Your task to perform on an android device: turn on the 24-hour format for clock Image 0: 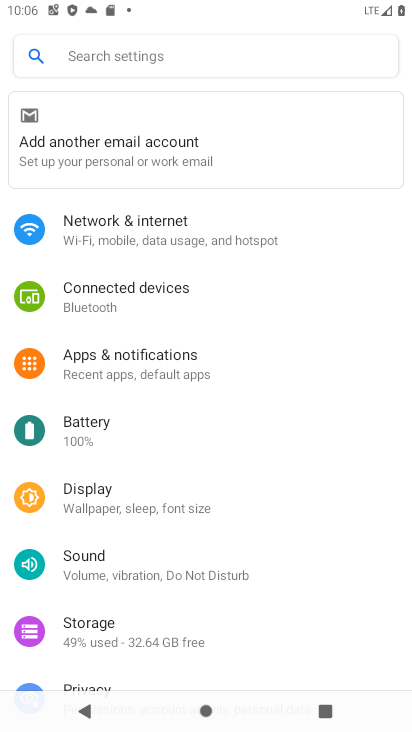
Step 0: press home button
Your task to perform on an android device: turn on the 24-hour format for clock Image 1: 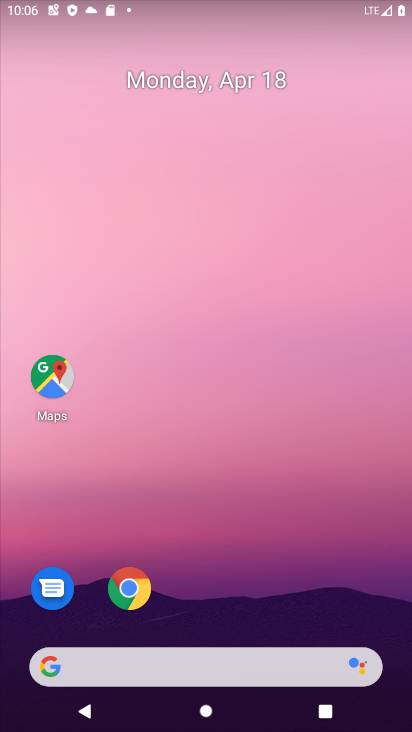
Step 1: drag from (383, 582) to (348, 150)
Your task to perform on an android device: turn on the 24-hour format for clock Image 2: 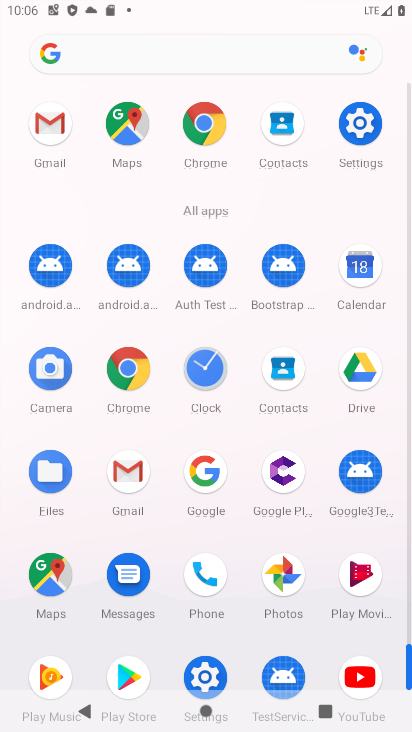
Step 2: click (203, 363)
Your task to perform on an android device: turn on the 24-hour format for clock Image 3: 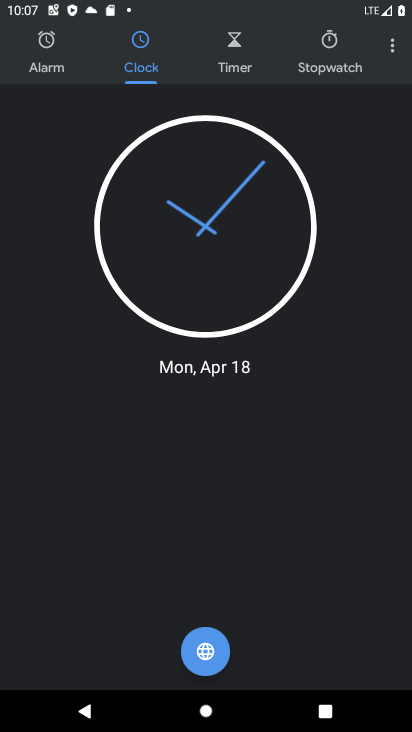
Step 3: click (391, 45)
Your task to perform on an android device: turn on the 24-hour format for clock Image 4: 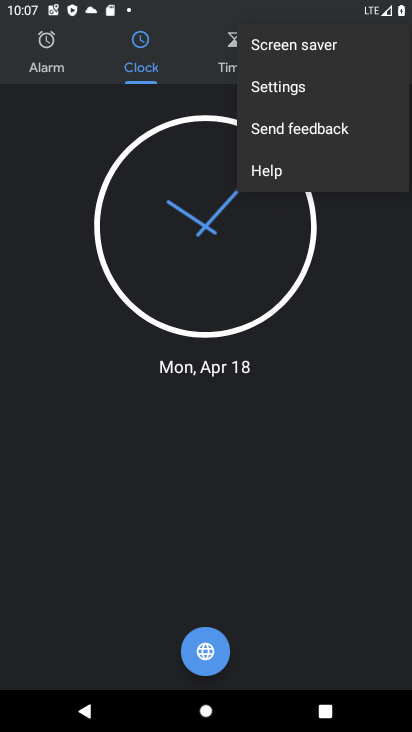
Step 4: click (273, 85)
Your task to perform on an android device: turn on the 24-hour format for clock Image 5: 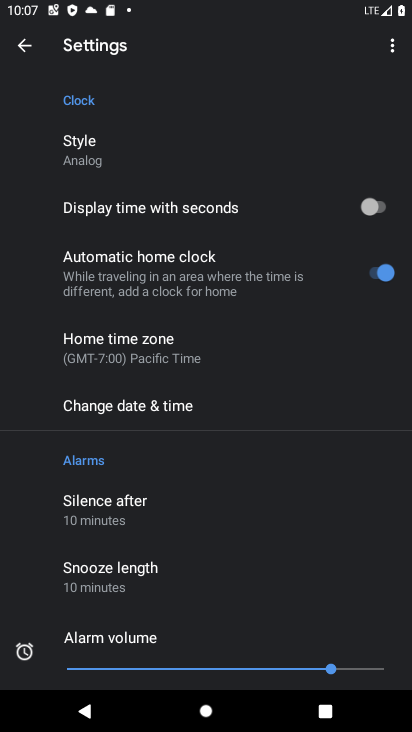
Step 5: click (134, 420)
Your task to perform on an android device: turn on the 24-hour format for clock Image 6: 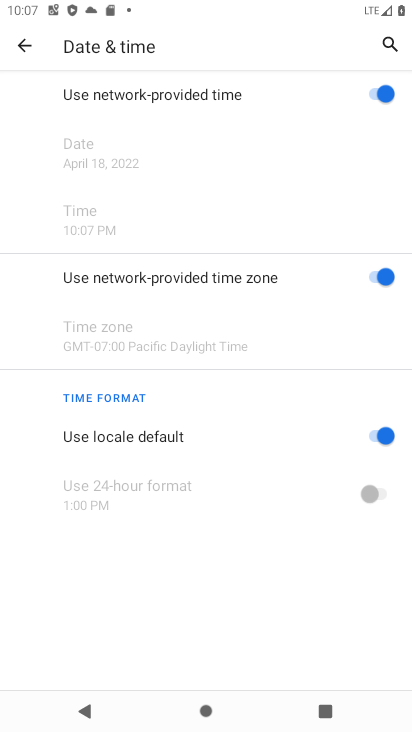
Step 6: click (375, 435)
Your task to perform on an android device: turn on the 24-hour format for clock Image 7: 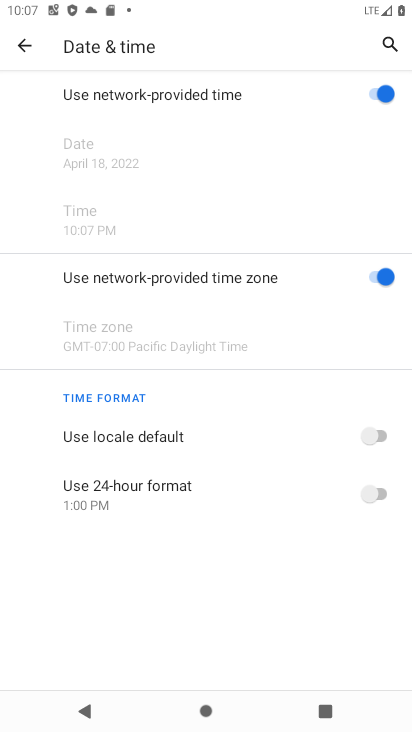
Step 7: click (379, 494)
Your task to perform on an android device: turn on the 24-hour format for clock Image 8: 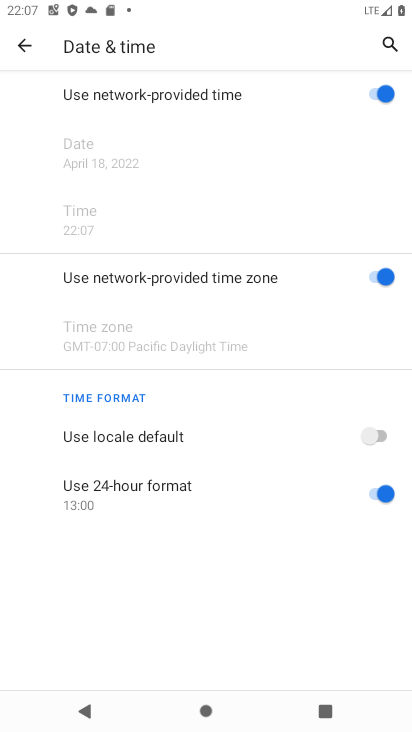
Step 8: task complete